Your task to perform on an android device: empty trash in google photos Image 0: 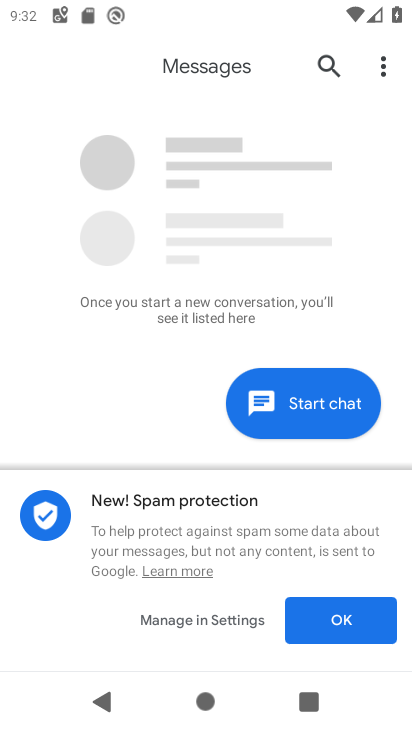
Step 0: press home button
Your task to perform on an android device: empty trash in google photos Image 1: 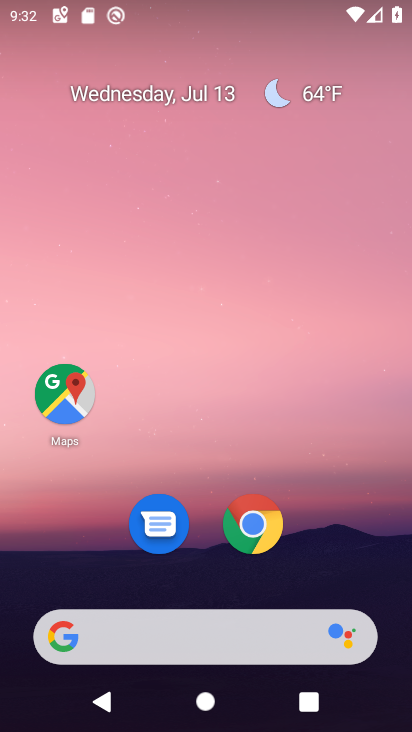
Step 1: drag from (224, 569) to (216, 52)
Your task to perform on an android device: empty trash in google photos Image 2: 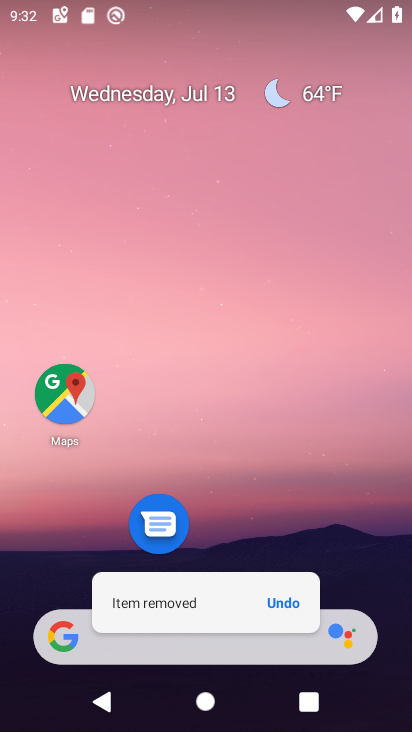
Step 2: drag from (224, 548) to (201, 47)
Your task to perform on an android device: empty trash in google photos Image 3: 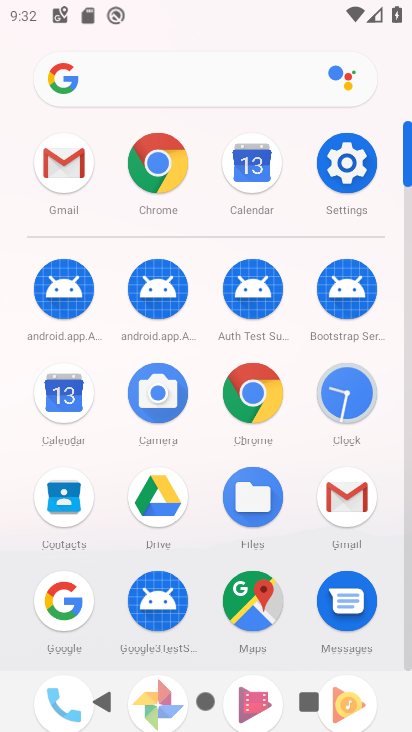
Step 3: drag from (102, 547) to (89, 243)
Your task to perform on an android device: empty trash in google photos Image 4: 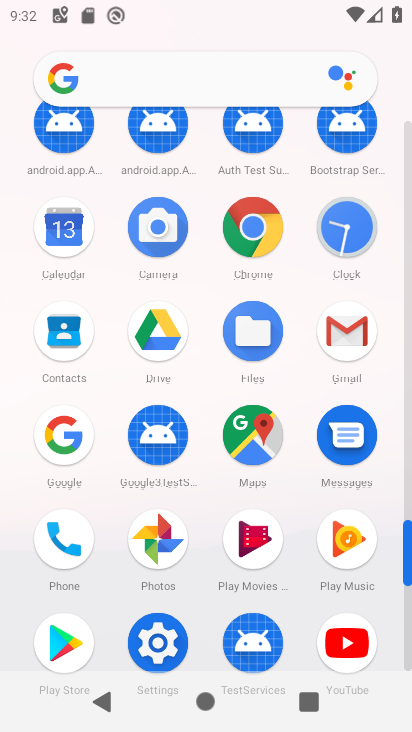
Step 4: click (156, 531)
Your task to perform on an android device: empty trash in google photos Image 5: 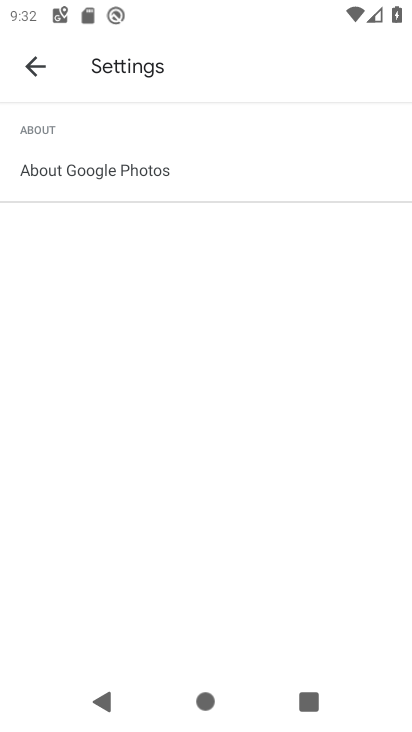
Step 5: click (37, 45)
Your task to perform on an android device: empty trash in google photos Image 6: 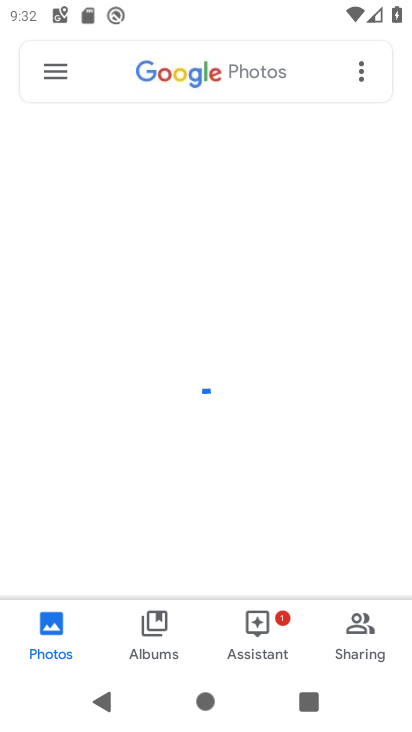
Step 6: click (50, 83)
Your task to perform on an android device: empty trash in google photos Image 7: 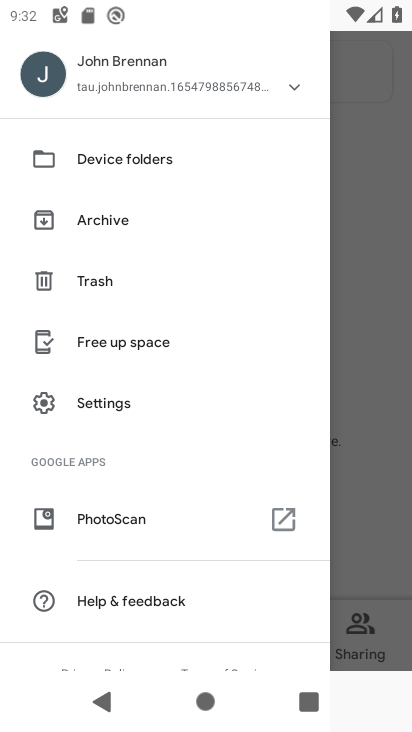
Step 7: click (98, 296)
Your task to perform on an android device: empty trash in google photos Image 8: 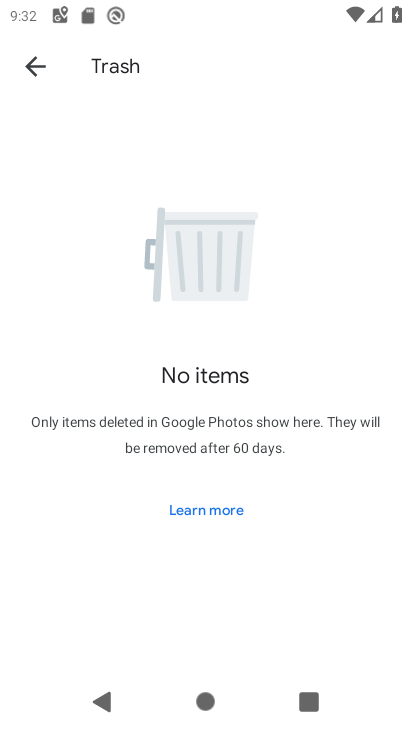
Step 8: task complete